Your task to perform on an android device: Open Android settings Image 0: 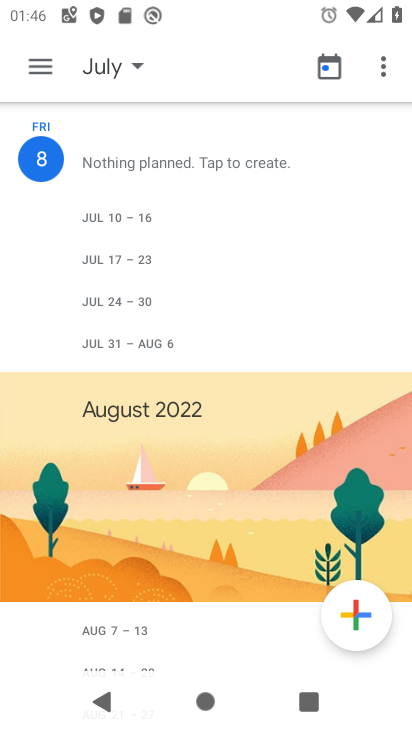
Step 0: press home button
Your task to perform on an android device: Open Android settings Image 1: 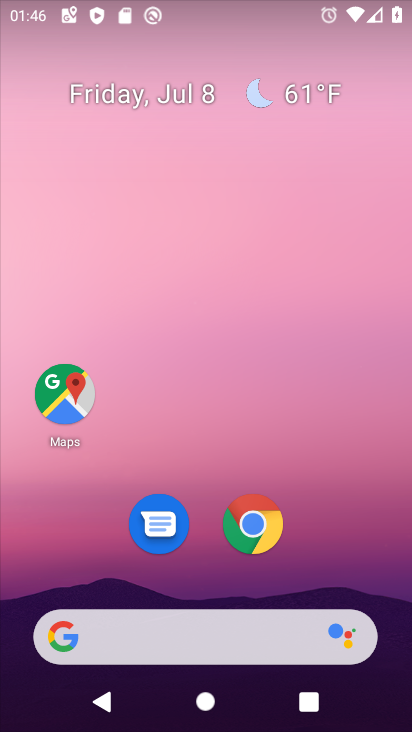
Step 1: drag from (326, 554) to (338, 30)
Your task to perform on an android device: Open Android settings Image 2: 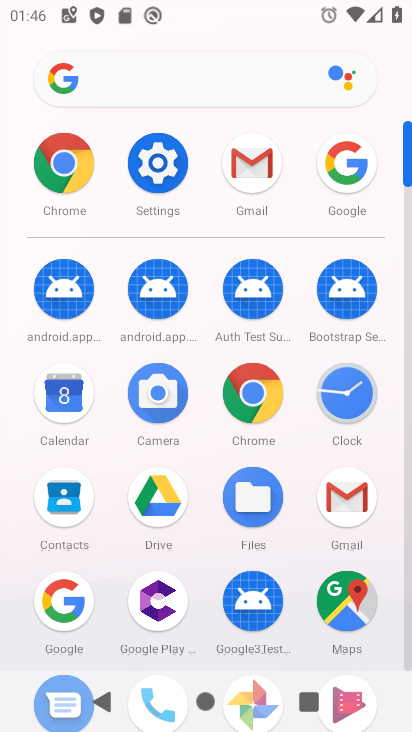
Step 2: click (153, 164)
Your task to perform on an android device: Open Android settings Image 3: 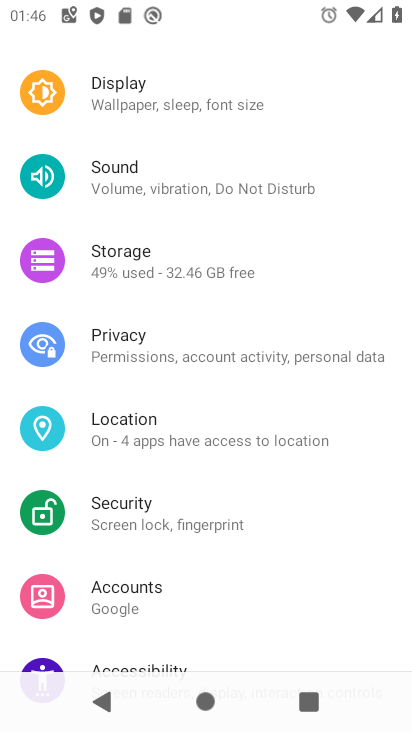
Step 3: drag from (252, 564) to (258, 47)
Your task to perform on an android device: Open Android settings Image 4: 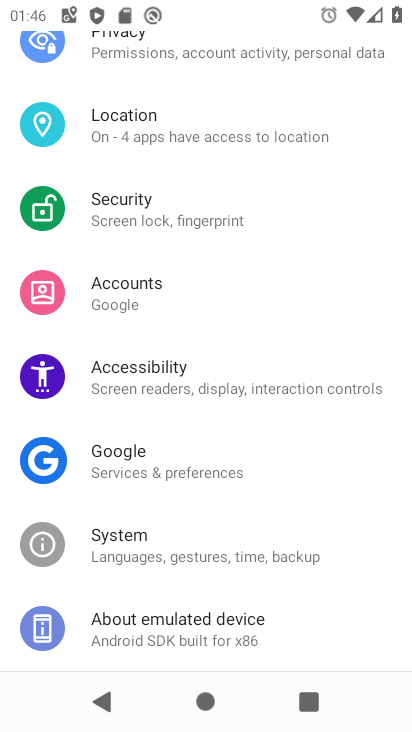
Step 4: click (217, 627)
Your task to perform on an android device: Open Android settings Image 5: 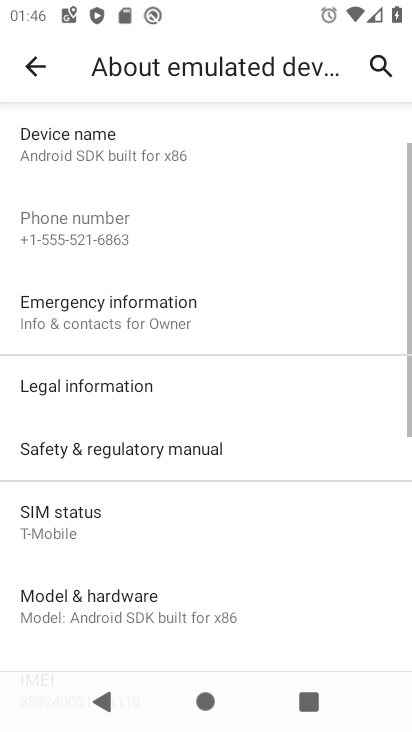
Step 5: task complete